Your task to perform on an android device: check data usage Image 0: 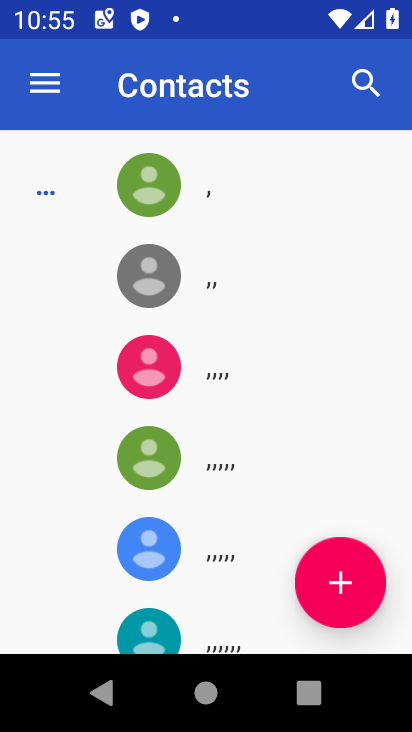
Step 0: press home button
Your task to perform on an android device: check data usage Image 1: 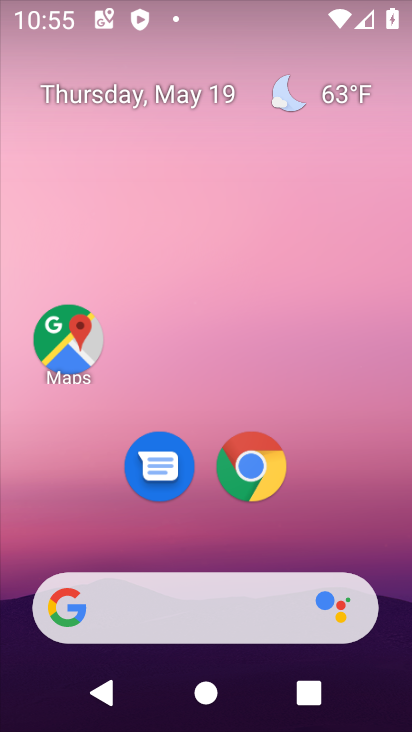
Step 1: drag from (393, 614) to (336, 49)
Your task to perform on an android device: check data usage Image 2: 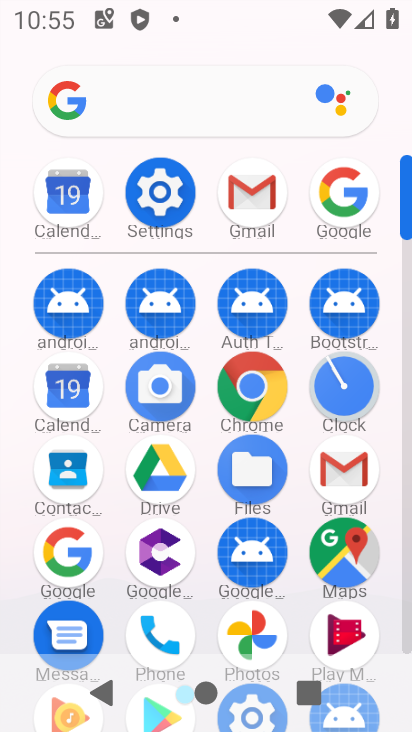
Step 2: click (146, 190)
Your task to perform on an android device: check data usage Image 3: 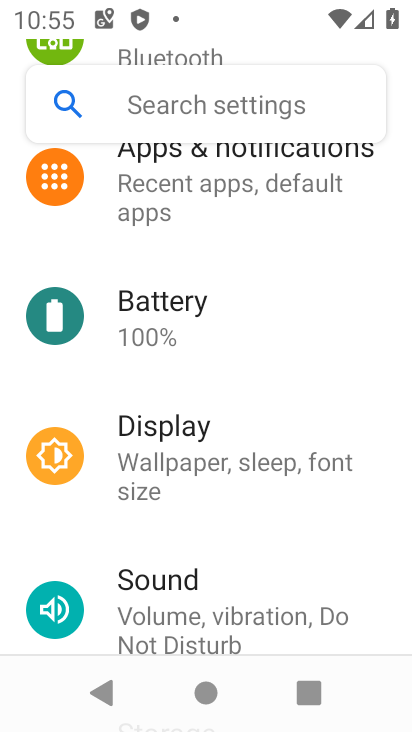
Step 3: drag from (263, 201) to (246, 537)
Your task to perform on an android device: check data usage Image 4: 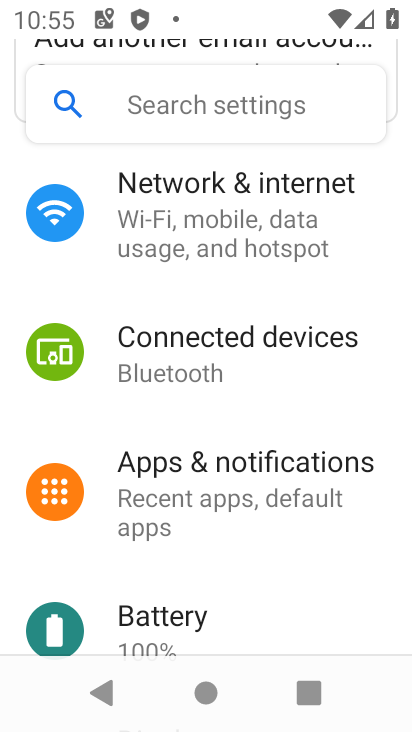
Step 4: click (205, 209)
Your task to perform on an android device: check data usage Image 5: 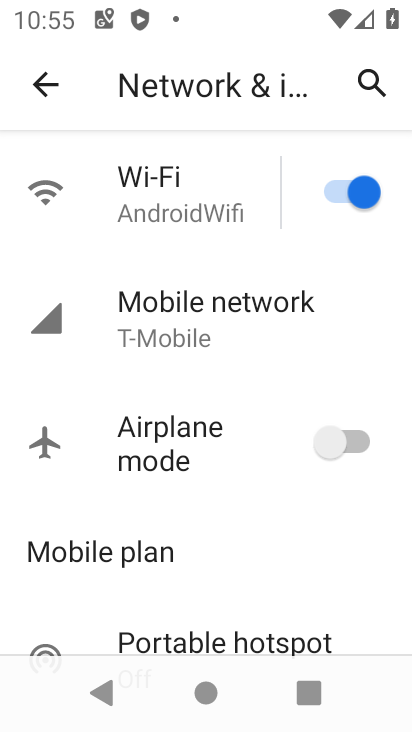
Step 5: click (208, 324)
Your task to perform on an android device: check data usage Image 6: 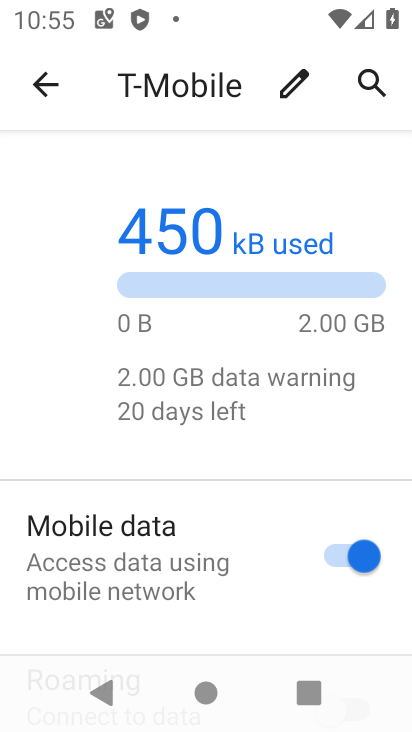
Step 6: drag from (169, 575) to (212, 60)
Your task to perform on an android device: check data usage Image 7: 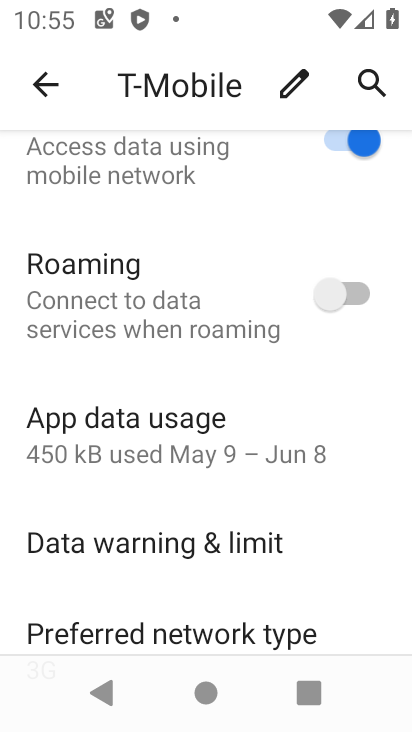
Step 7: click (179, 440)
Your task to perform on an android device: check data usage Image 8: 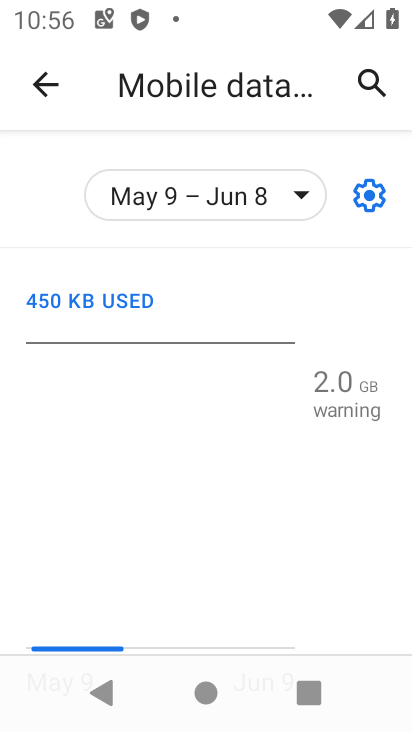
Step 8: task complete